Your task to perform on an android device: Search for vegetarian restaurants on Maps Image 0: 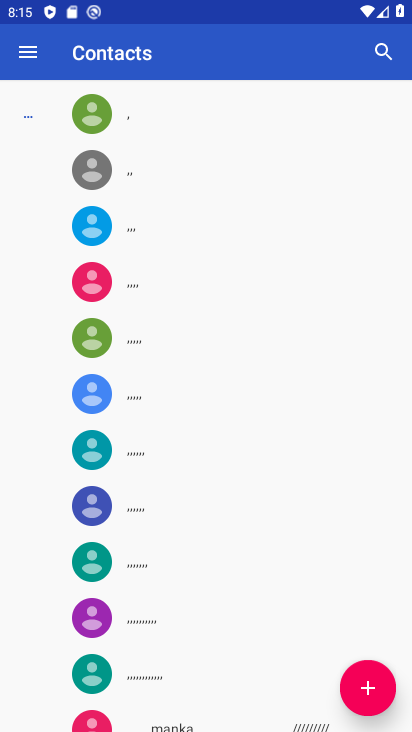
Step 0: press home button
Your task to perform on an android device: Search for vegetarian restaurants on Maps Image 1: 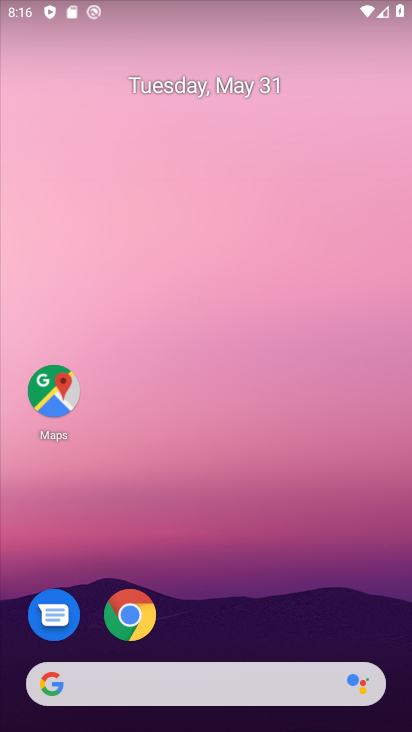
Step 1: click (52, 385)
Your task to perform on an android device: Search for vegetarian restaurants on Maps Image 2: 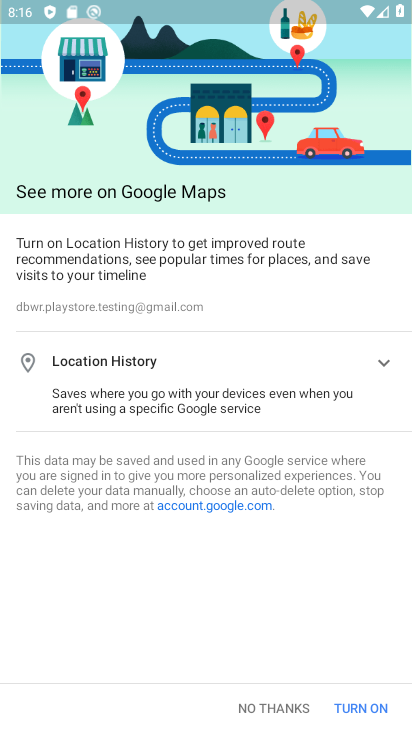
Step 2: click (266, 703)
Your task to perform on an android device: Search for vegetarian restaurants on Maps Image 3: 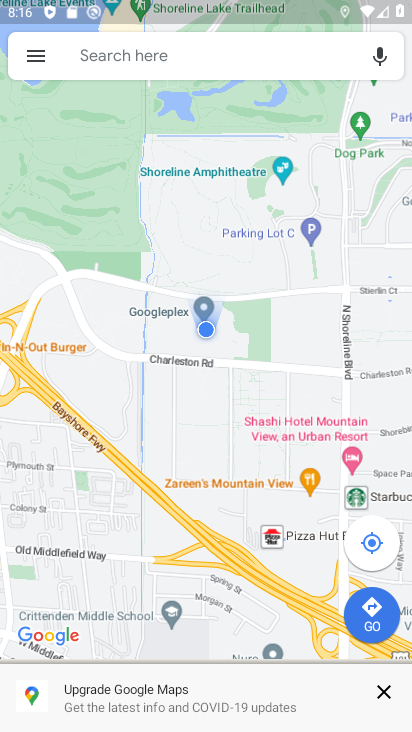
Step 3: click (126, 66)
Your task to perform on an android device: Search for vegetarian restaurants on Maps Image 4: 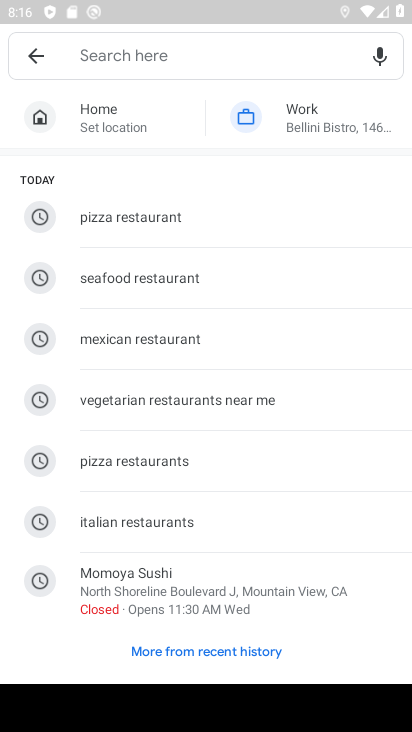
Step 4: type "vegetarian restaurants"
Your task to perform on an android device: Search for vegetarian restaurants on Maps Image 5: 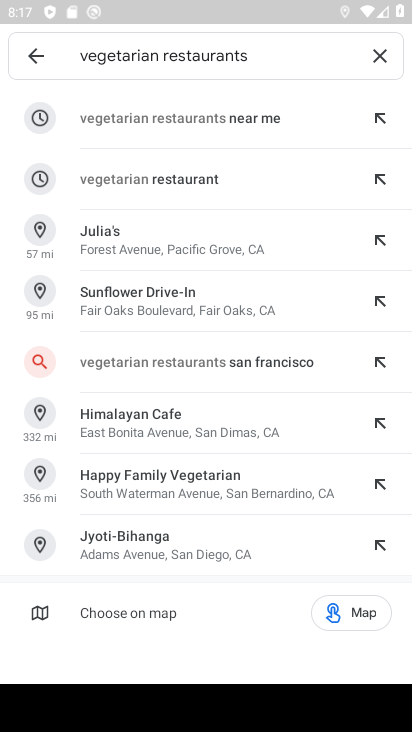
Step 5: click (169, 179)
Your task to perform on an android device: Search for vegetarian restaurants on Maps Image 6: 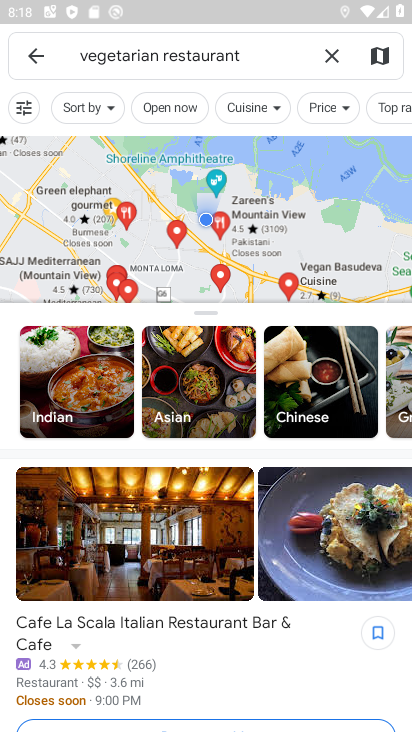
Step 6: task complete